Your task to perform on an android device: Search for alienware area 51 on costco.com, select the first entry, add it to the cart, then select checkout. Image 0: 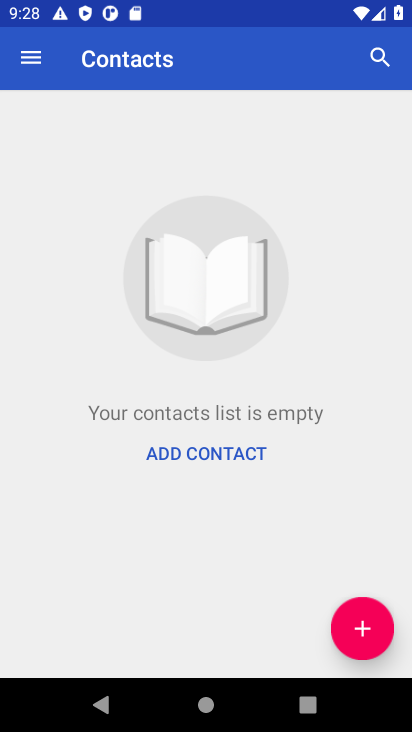
Step 0: click (368, 56)
Your task to perform on an android device: Search for alienware area 51 on costco.com, select the first entry, add it to the cart, then select checkout. Image 1: 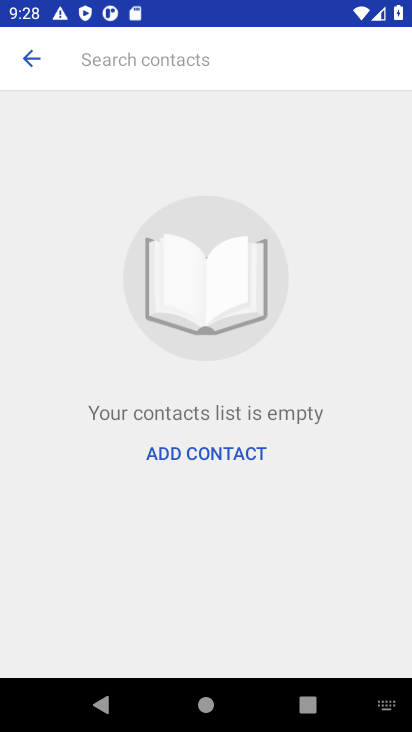
Step 1: type "alienware area 51"
Your task to perform on an android device: Search for alienware area 51 on costco.com, select the first entry, add it to the cart, then select checkout. Image 2: 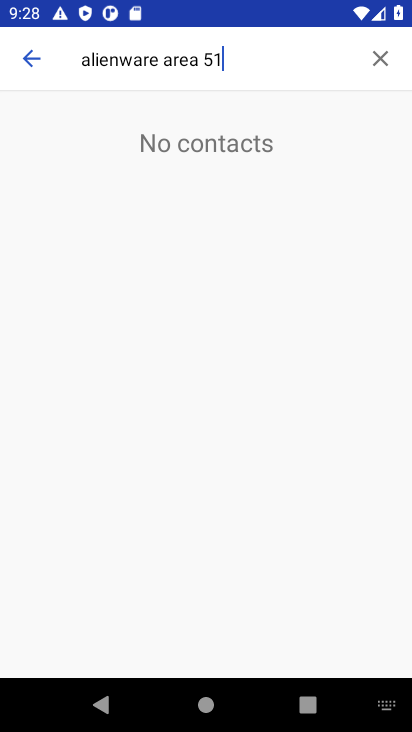
Step 2: press enter
Your task to perform on an android device: Search for alienware area 51 on costco.com, select the first entry, add it to the cart, then select checkout. Image 3: 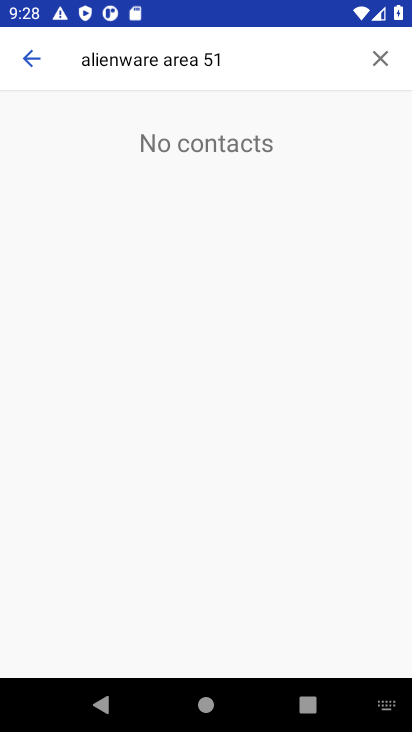
Step 3: press enter
Your task to perform on an android device: Search for alienware area 51 on costco.com, select the first entry, add it to the cart, then select checkout. Image 4: 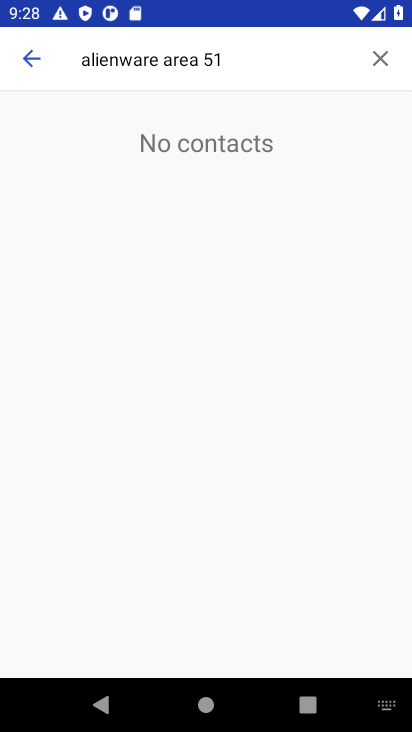
Step 4: press enter
Your task to perform on an android device: Search for alienware area 51 on costco.com, select the first entry, add it to the cart, then select checkout. Image 5: 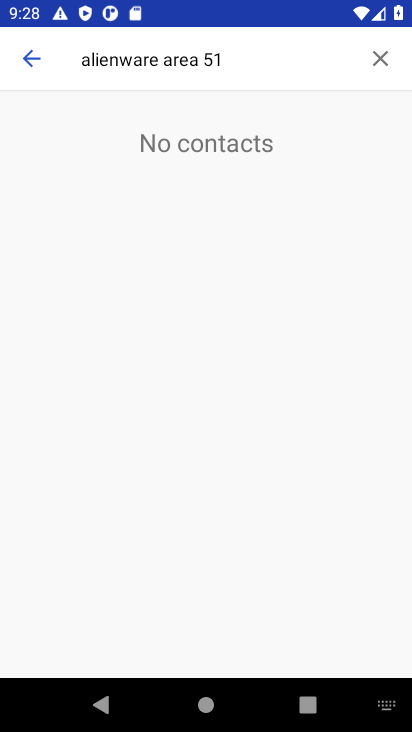
Step 5: press enter
Your task to perform on an android device: Search for alienware area 51 on costco.com, select the first entry, add it to the cart, then select checkout. Image 6: 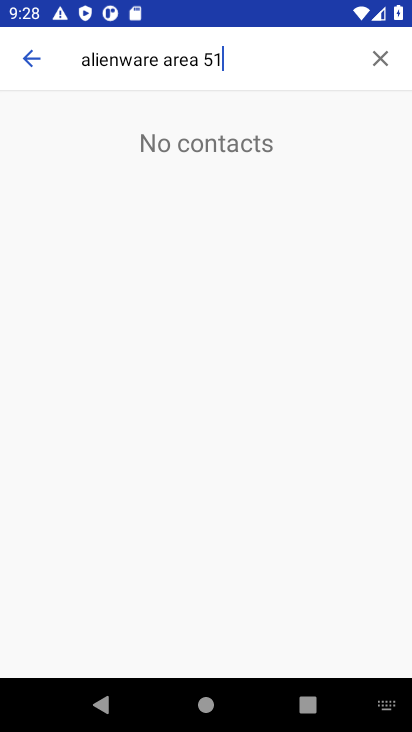
Step 6: click (374, 65)
Your task to perform on an android device: Search for alienware area 51 on costco.com, select the first entry, add it to the cart, then select checkout. Image 7: 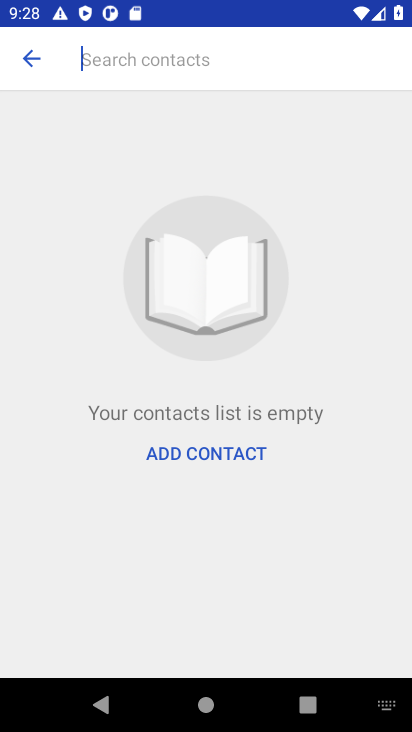
Step 7: click (378, 54)
Your task to perform on an android device: Search for alienware area 51 on costco.com, select the first entry, add it to the cart, then select checkout. Image 8: 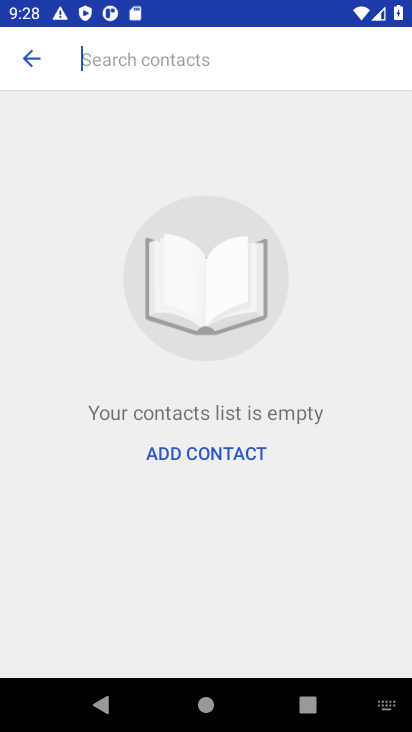
Step 8: click (35, 56)
Your task to perform on an android device: Search for alienware area 51 on costco.com, select the first entry, add it to the cart, then select checkout. Image 9: 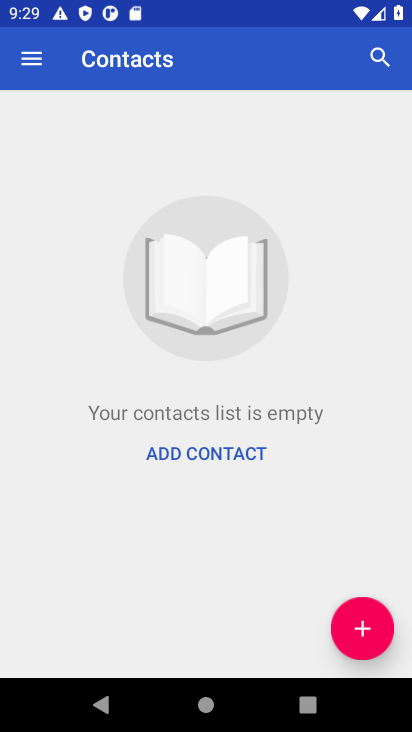
Step 9: click (26, 66)
Your task to perform on an android device: Search for alienware area 51 on costco.com, select the first entry, add it to the cart, then select checkout. Image 10: 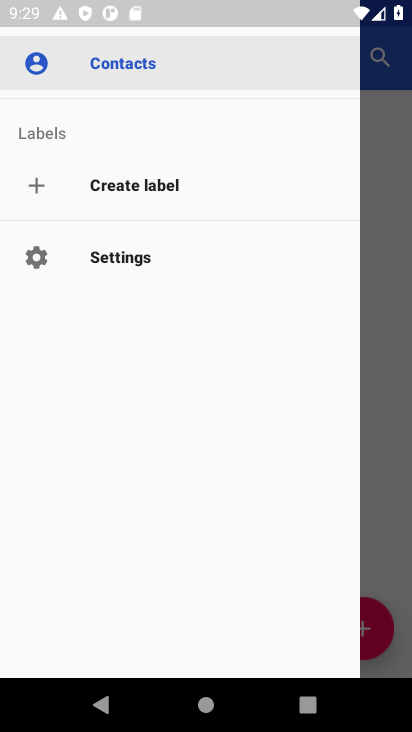
Step 10: click (26, 66)
Your task to perform on an android device: Search for alienware area 51 on costco.com, select the first entry, add it to the cart, then select checkout. Image 11: 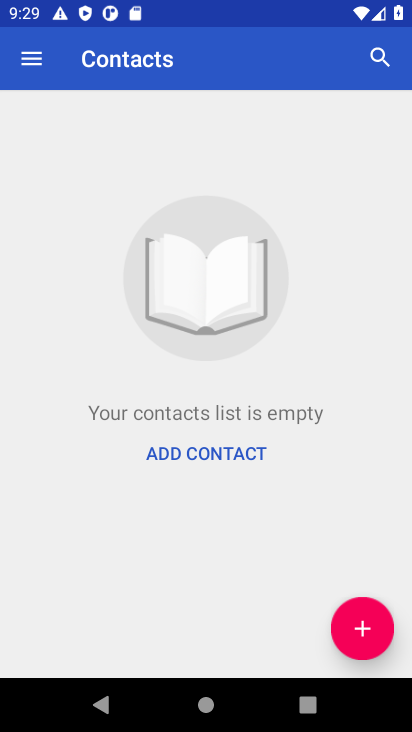
Step 11: drag from (200, 274) to (205, 550)
Your task to perform on an android device: Search for alienware area 51 on costco.com, select the first entry, add it to the cart, then select checkout. Image 12: 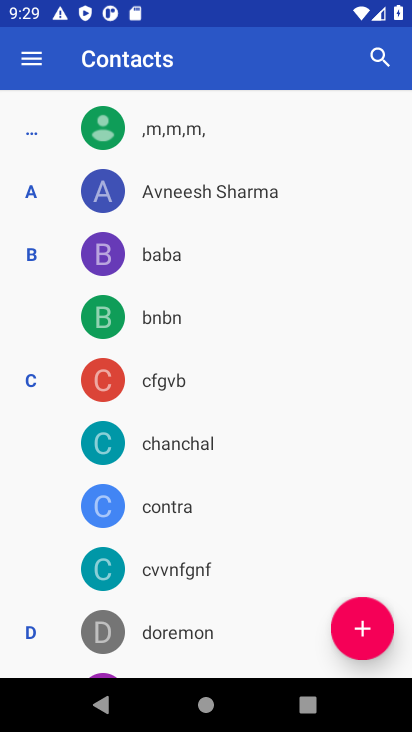
Step 12: press home button
Your task to perform on an android device: Search for alienware area 51 on costco.com, select the first entry, add it to the cart, then select checkout. Image 13: 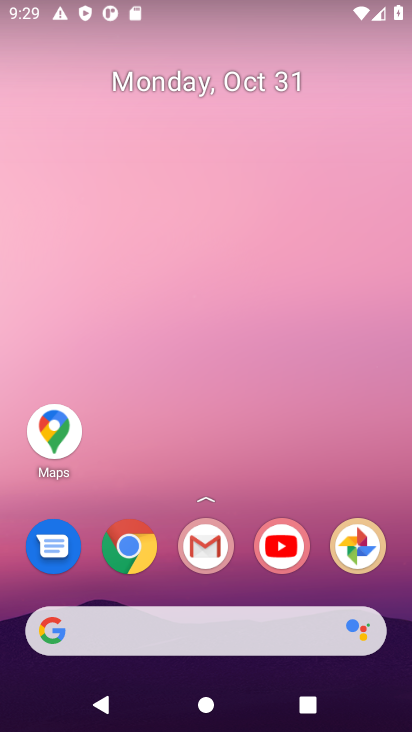
Step 13: click (130, 554)
Your task to perform on an android device: Search for alienware area 51 on costco.com, select the first entry, add it to the cart, then select checkout. Image 14: 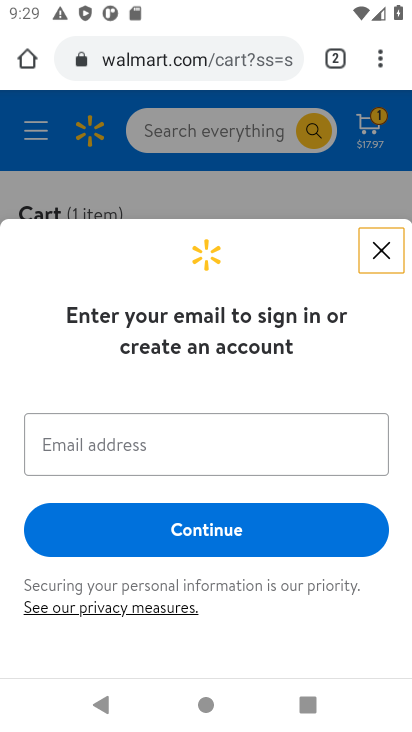
Step 14: click (209, 49)
Your task to perform on an android device: Search for alienware area 51 on costco.com, select the first entry, add it to the cart, then select checkout. Image 15: 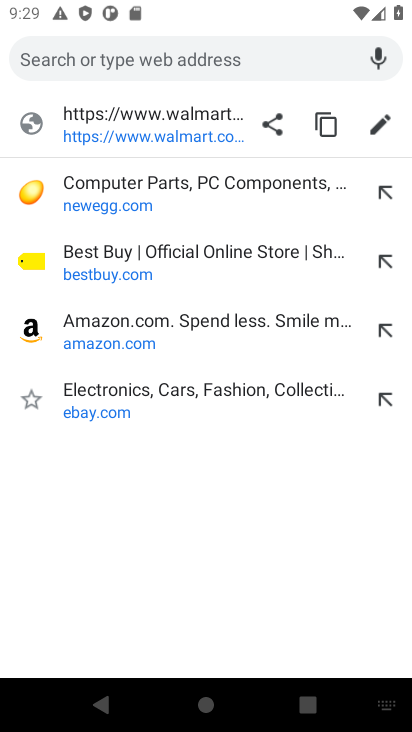
Step 15: type "costco.com"
Your task to perform on an android device: Search for alienware area 51 on costco.com, select the first entry, add it to the cart, then select checkout. Image 16: 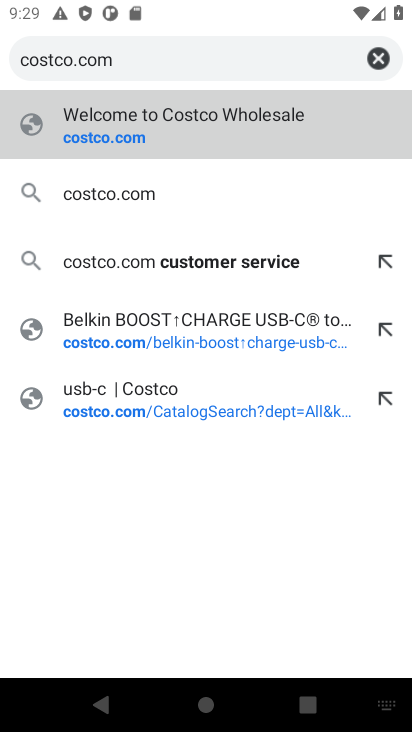
Step 16: press enter
Your task to perform on an android device: Search for alienware area 51 on costco.com, select the first entry, add it to the cart, then select checkout. Image 17: 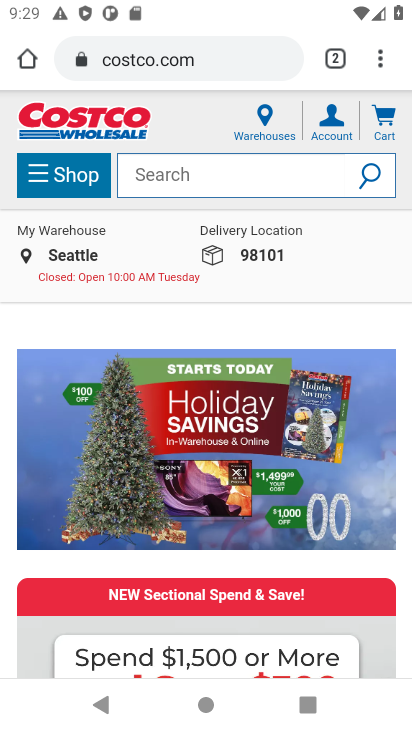
Step 17: click (167, 173)
Your task to perform on an android device: Search for alienware area 51 on costco.com, select the first entry, add it to the cart, then select checkout. Image 18: 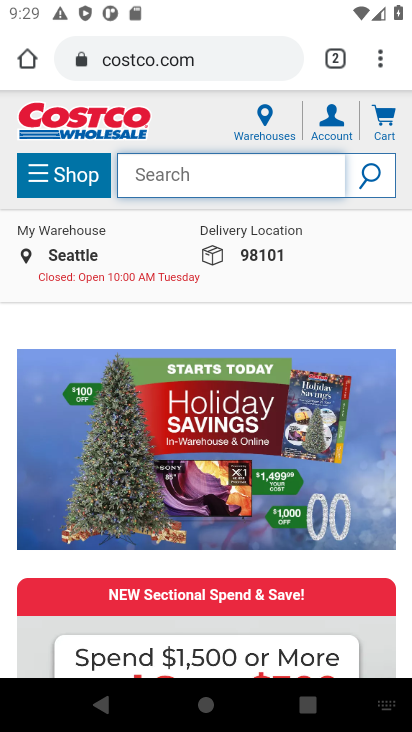
Step 18: type "alienware area 51"
Your task to perform on an android device: Search for alienware area 51 on costco.com, select the first entry, add it to the cart, then select checkout. Image 19: 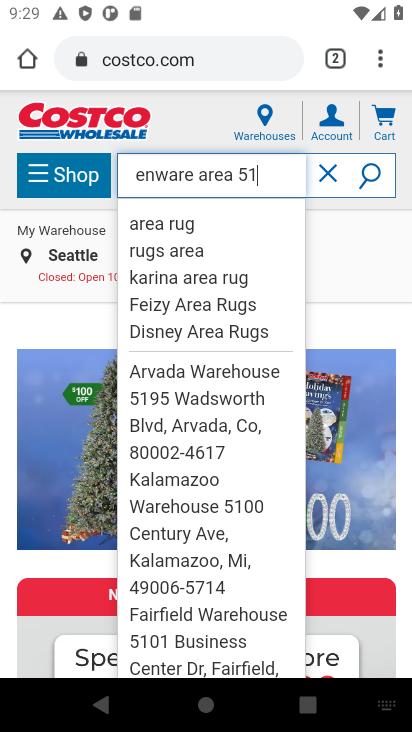
Step 19: press enter
Your task to perform on an android device: Search for alienware area 51 on costco.com, select the first entry, add it to the cart, then select checkout. Image 20: 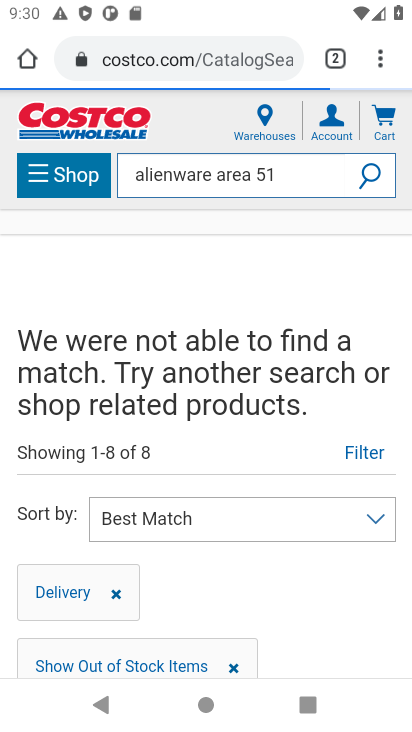
Step 20: task complete